Your task to perform on an android device: change the clock display to digital Image 0: 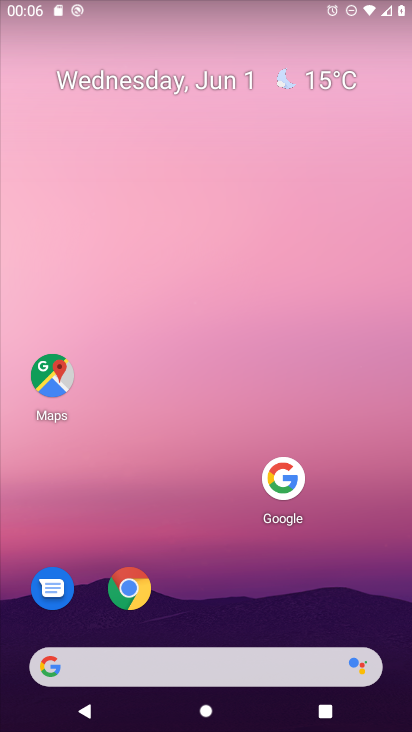
Step 0: press home button
Your task to perform on an android device: change the clock display to digital Image 1: 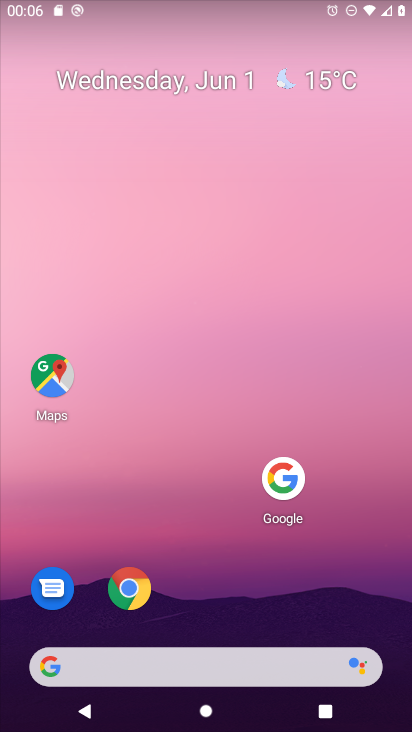
Step 1: drag from (168, 668) to (284, 80)
Your task to perform on an android device: change the clock display to digital Image 2: 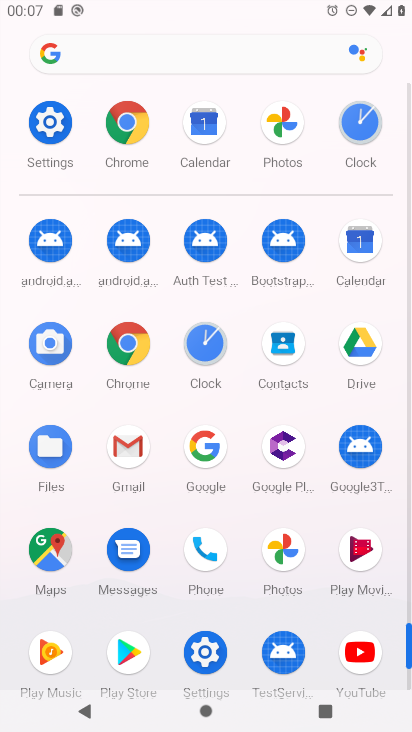
Step 2: click (358, 126)
Your task to perform on an android device: change the clock display to digital Image 3: 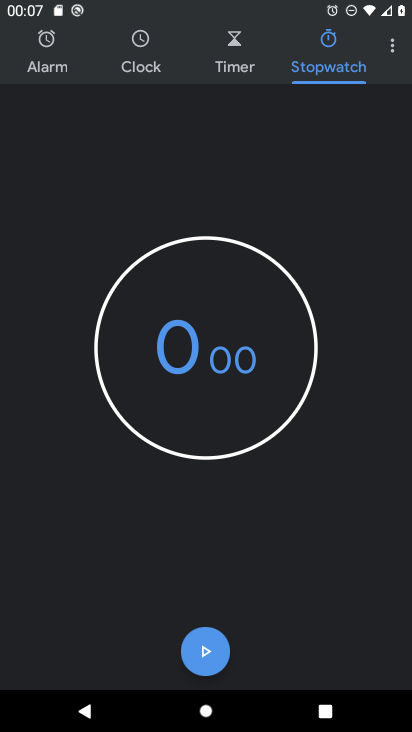
Step 3: click (389, 44)
Your task to perform on an android device: change the clock display to digital Image 4: 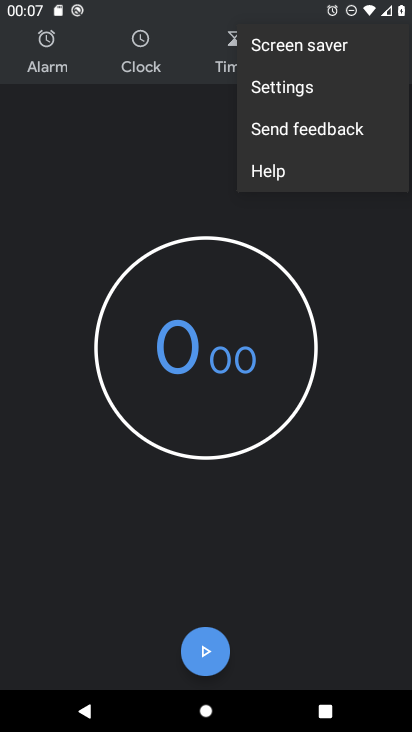
Step 4: click (281, 93)
Your task to perform on an android device: change the clock display to digital Image 5: 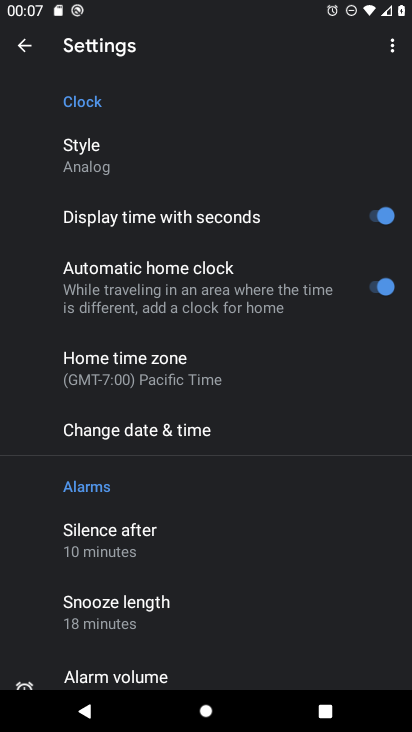
Step 5: click (78, 160)
Your task to perform on an android device: change the clock display to digital Image 6: 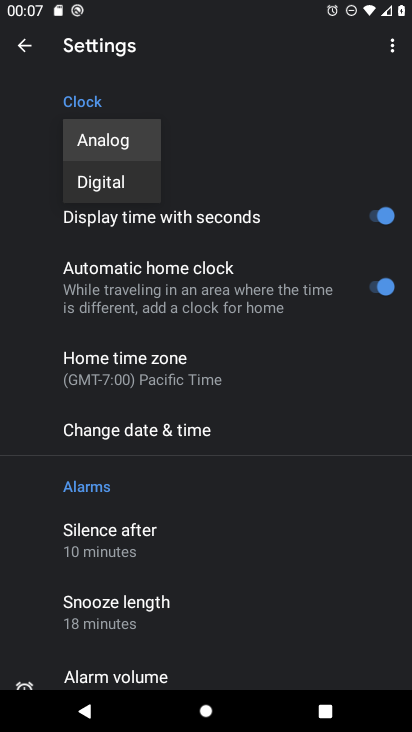
Step 6: click (104, 182)
Your task to perform on an android device: change the clock display to digital Image 7: 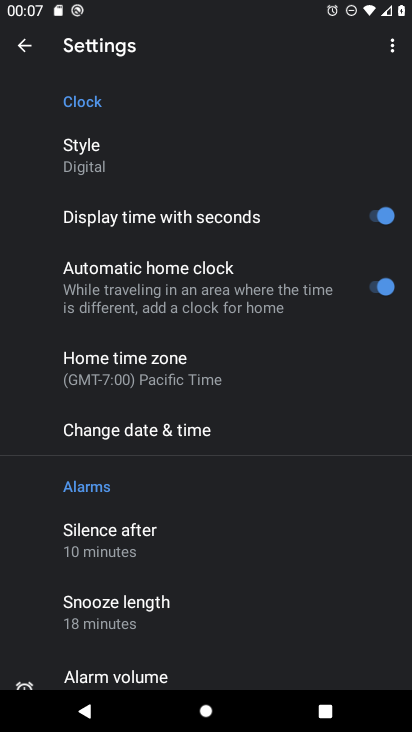
Step 7: task complete